Your task to perform on an android device: turn on the 24-hour format for clock Image 0: 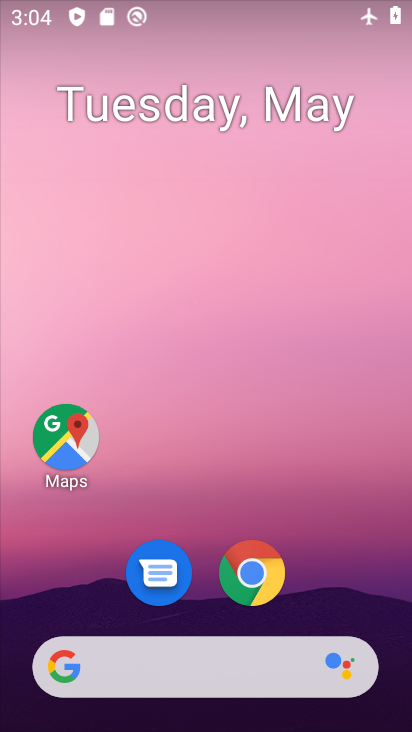
Step 0: drag from (206, 547) to (276, 62)
Your task to perform on an android device: turn on the 24-hour format for clock Image 1: 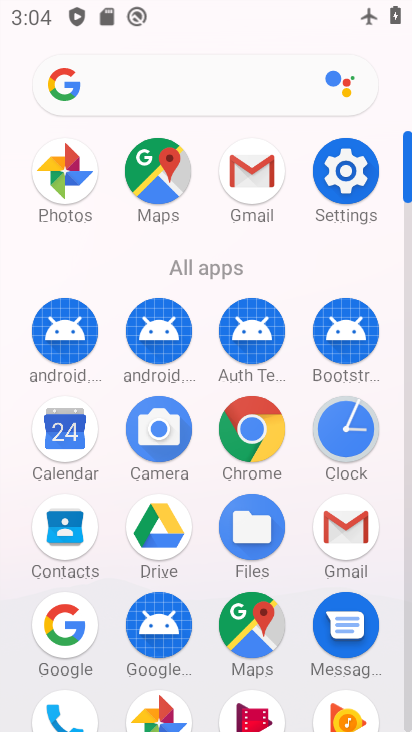
Step 1: click (346, 429)
Your task to perform on an android device: turn on the 24-hour format for clock Image 2: 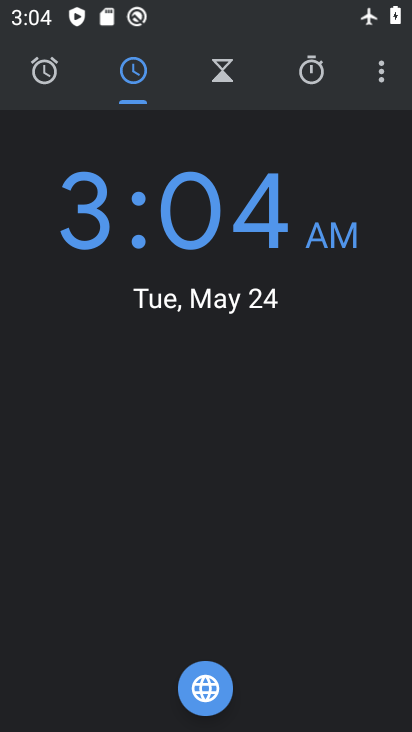
Step 2: click (365, 63)
Your task to perform on an android device: turn on the 24-hour format for clock Image 3: 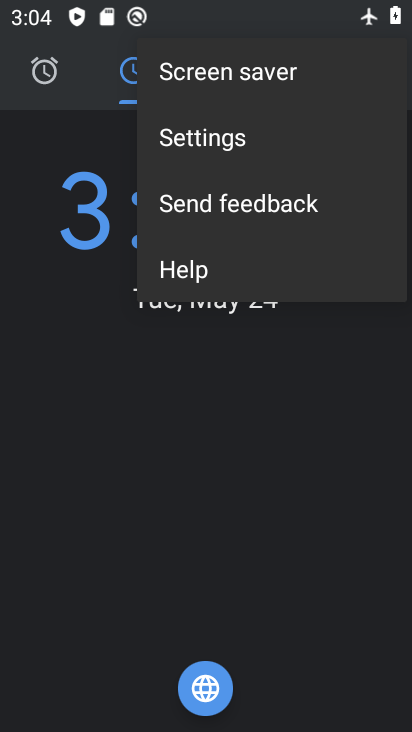
Step 3: click (270, 140)
Your task to perform on an android device: turn on the 24-hour format for clock Image 4: 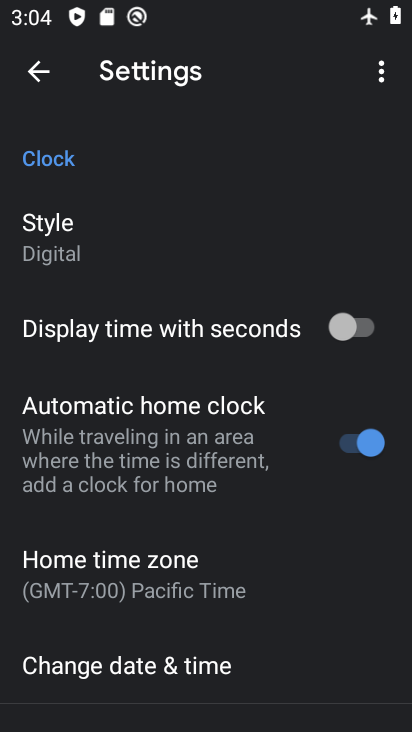
Step 4: click (121, 673)
Your task to perform on an android device: turn on the 24-hour format for clock Image 5: 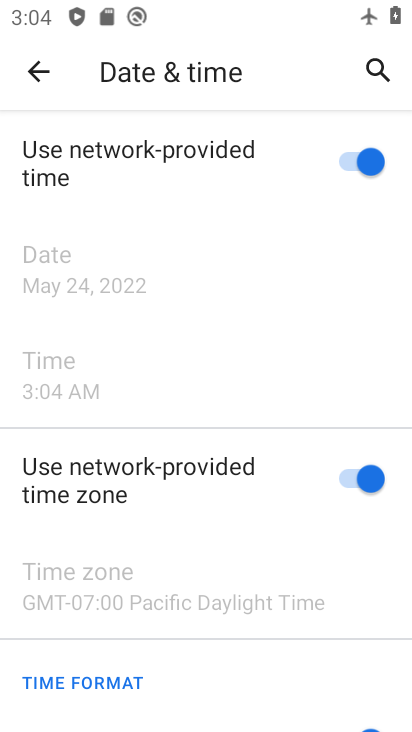
Step 5: drag from (189, 675) to (294, 213)
Your task to perform on an android device: turn on the 24-hour format for clock Image 6: 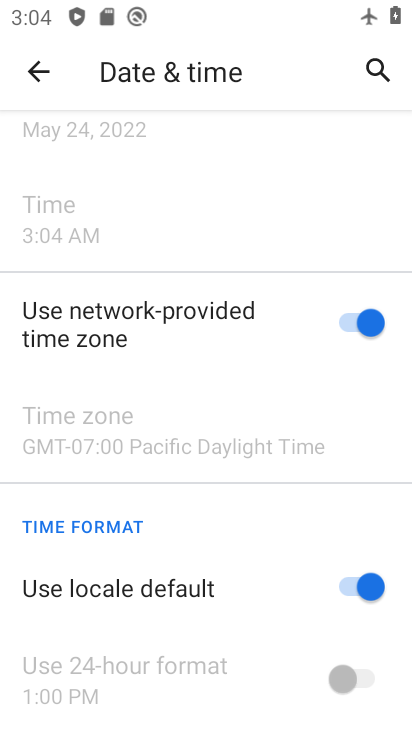
Step 6: click (369, 573)
Your task to perform on an android device: turn on the 24-hour format for clock Image 7: 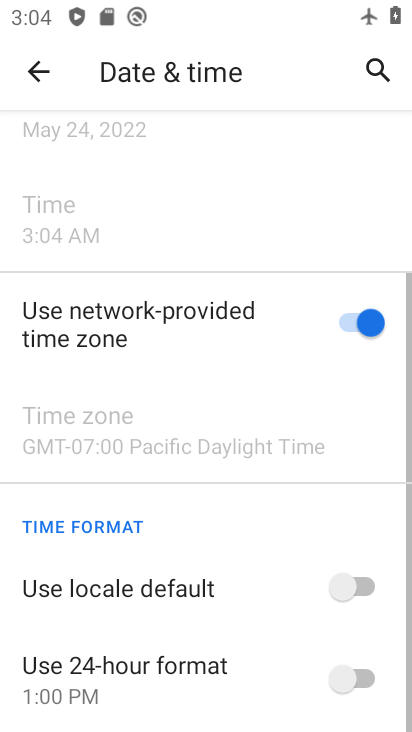
Step 7: click (352, 682)
Your task to perform on an android device: turn on the 24-hour format for clock Image 8: 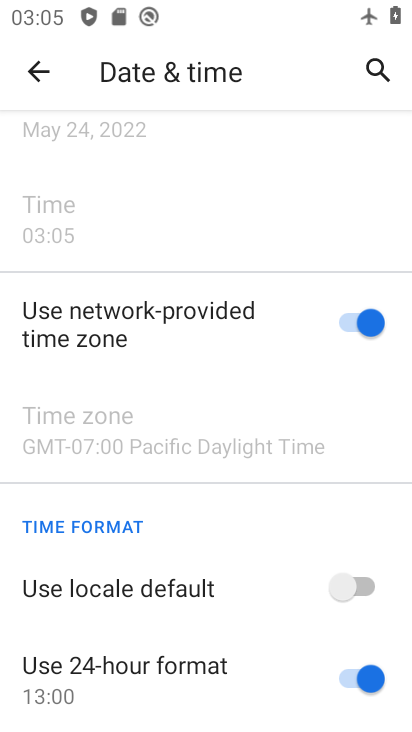
Step 8: task complete